Your task to perform on an android device: Go to privacy settings Image 0: 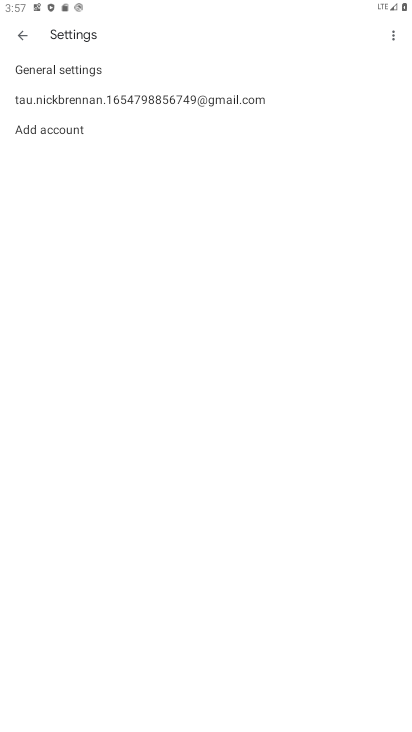
Step 0: press home button
Your task to perform on an android device: Go to privacy settings Image 1: 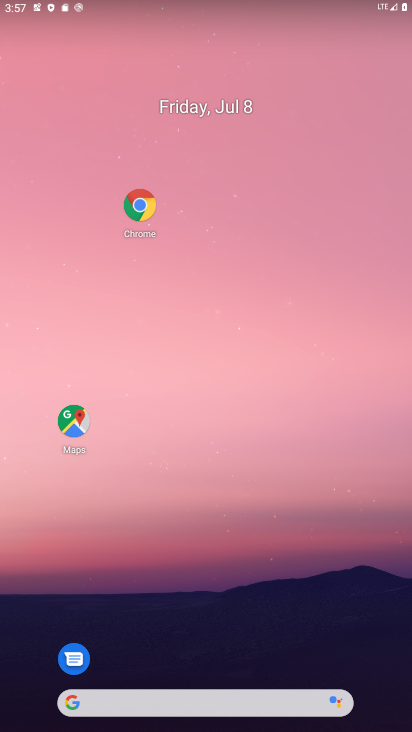
Step 1: drag from (209, 635) to (241, 103)
Your task to perform on an android device: Go to privacy settings Image 2: 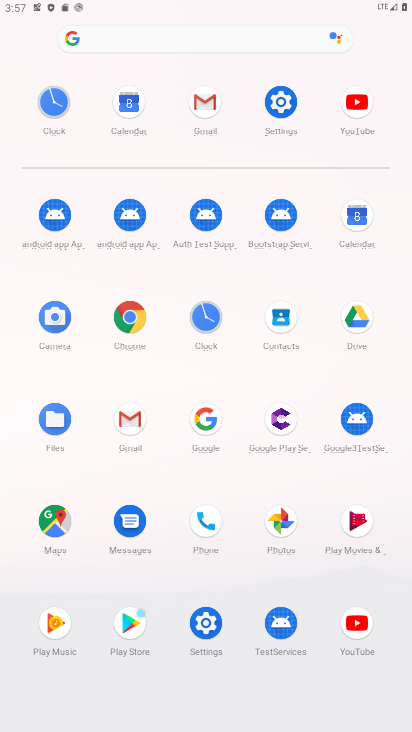
Step 2: click (271, 122)
Your task to perform on an android device: Go to privacy settings Image 3: 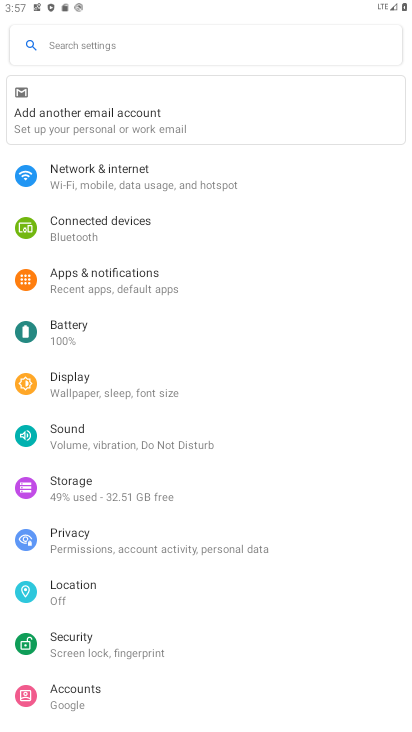
Step 3: click (116, 551)
Your task to perform on an android device: Go to privacy settings Image 4: 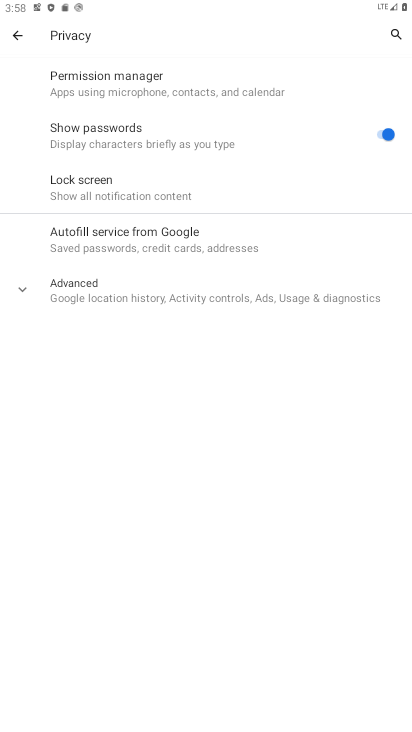
Step 4: task complete